Your task to perform on an android device: Go to network settings Image 0: 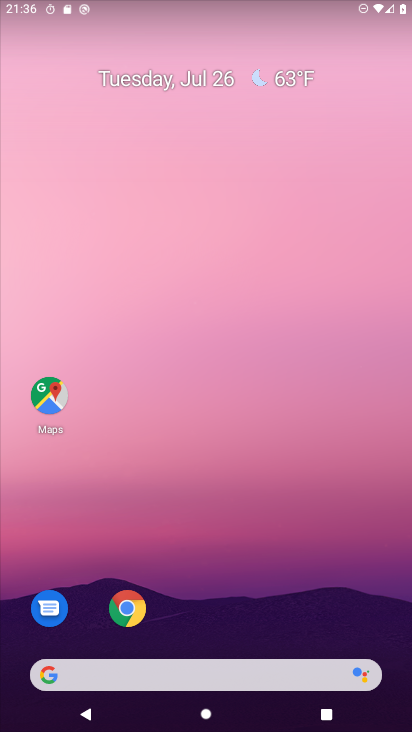
Step 0: drag from (34, 711) to (184, 70)
Your task to perform on an android device: Go to network settings Image 1: 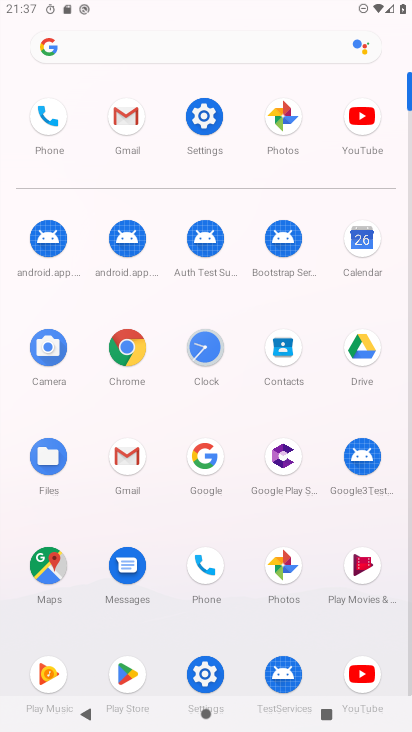
Step 1: click (198, 675)
Your task to perform on an android device: Go to network settings Image 2: 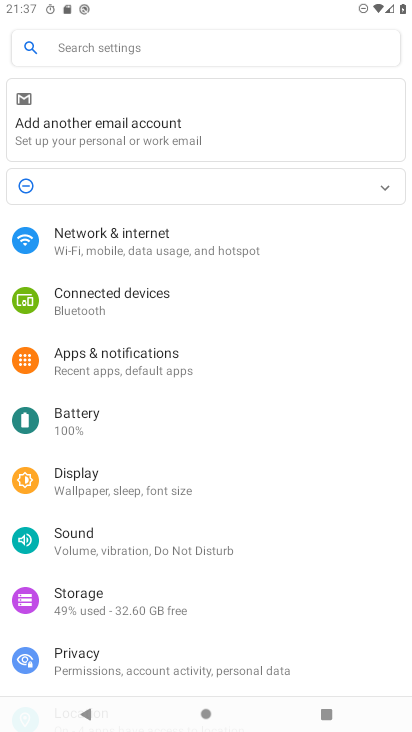
Step 2: click (126, 224)
Your task to perform on an android device: Go to network settings Image 3: 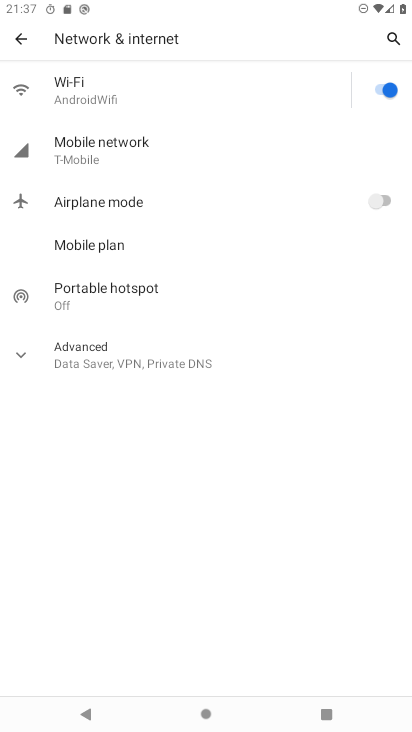
Step 3: task complete